Your task to perform on an android device: turn off priority inbox in the gmail app Image 0: 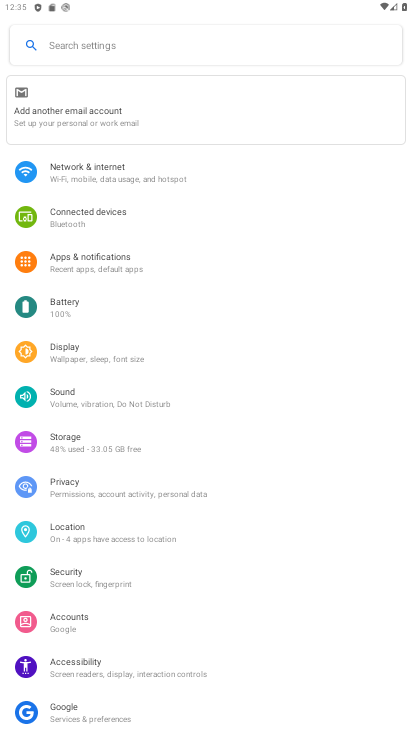
Step 0: press home button
Your task to perform on an android device: turn off priority inbox in the gmail app Image 1: 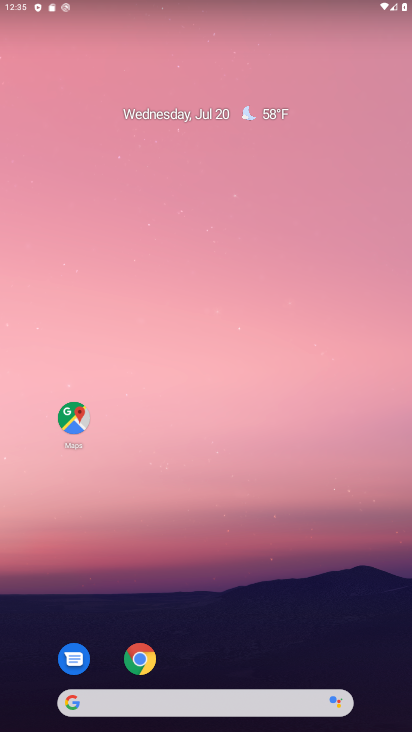
Step 1: drag from (176, 661) to (180, 164)
Your task to perform on an android device: turn off priority inbox in the gmail app Image 2: 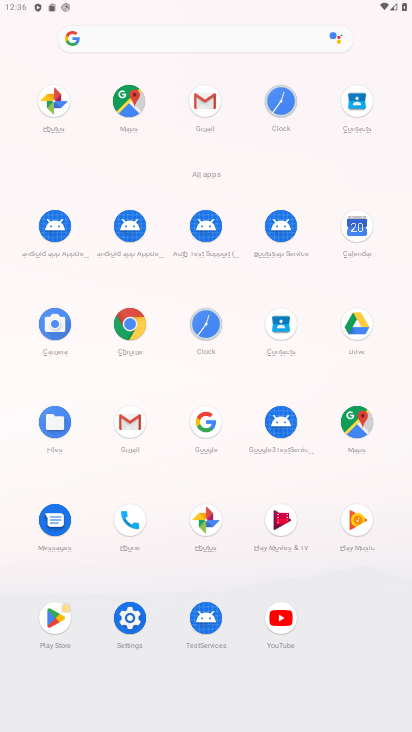
Step 2: click (126, 424)
Your task to perform on an android device: turn off priority inbox in the gmail app Image 3: 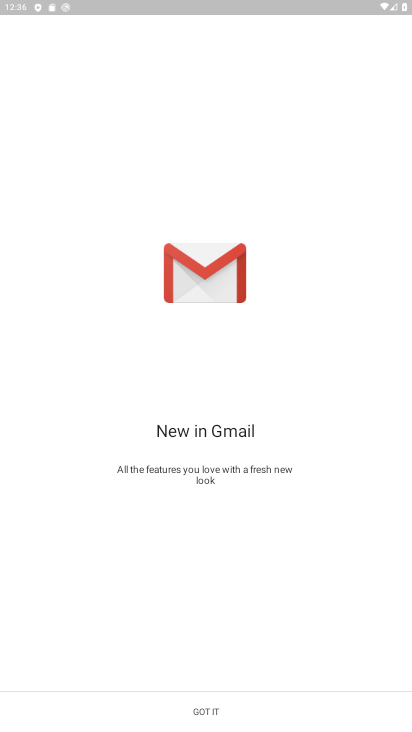
Step 3: click (237, 711)
Your task to perform on an android device: turn off priority inbox in the gmail app Image 4: 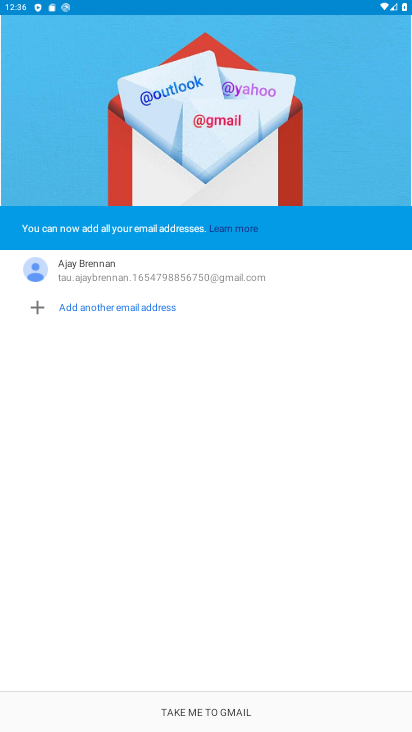
Step 4: click (250, 715)
Your task to perform on an android device: turn off priority inbox in the gmail app Image 5: 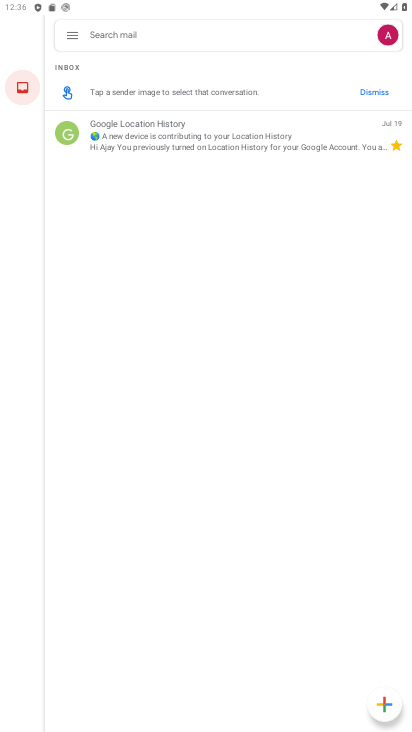
Step 5: click (65, 33)
Your task to perform on an android device: turn off priority inbox in the gmail app Image 6: 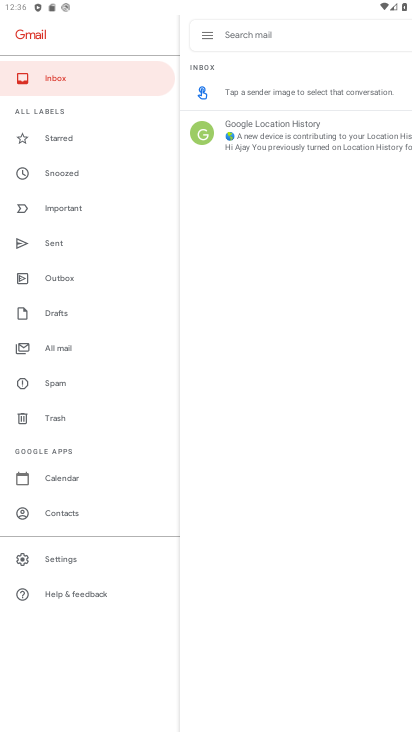
Step 6: click (75, 572)
Your task to perform on an android device: turn off priority inbox in the gmail app Image 7: 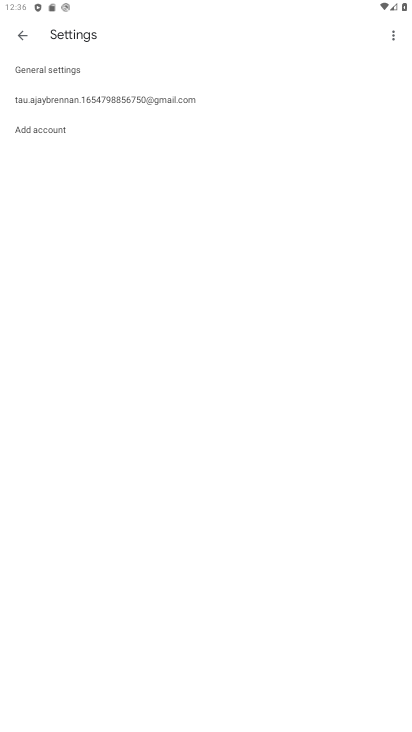
Step 7: click (112, 106)
Your task to perform on an android device: turn off priority inbox in the gmail app Image 8: 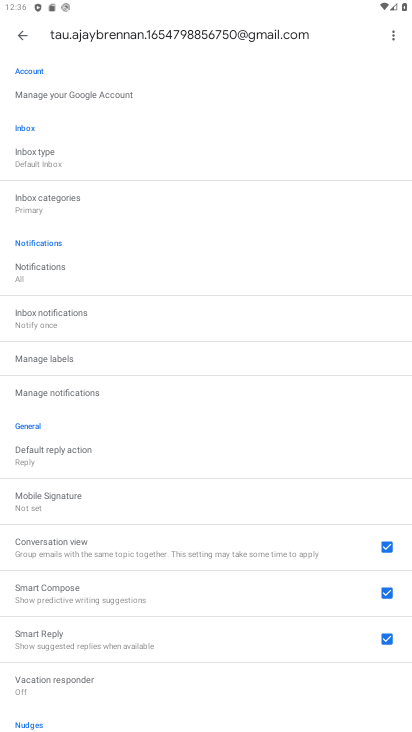
Step 8: click (46, 156)
Your task to perform on an android device: turn off priority inbox in the gmail app Image 9: 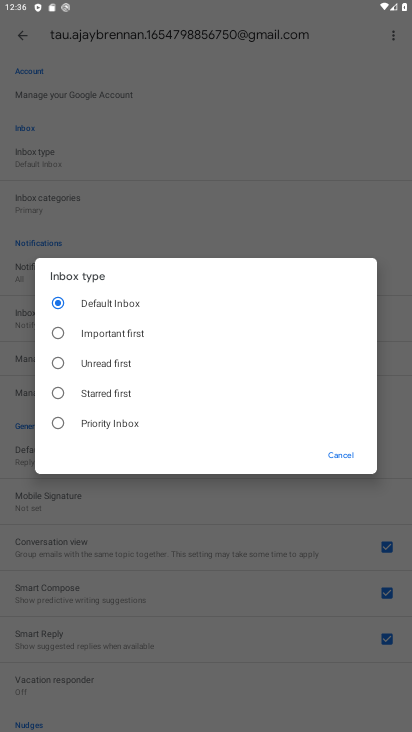
Step 9: task complete